Your task to perform on an android device: delete browsing data in the chrome app Image 0: 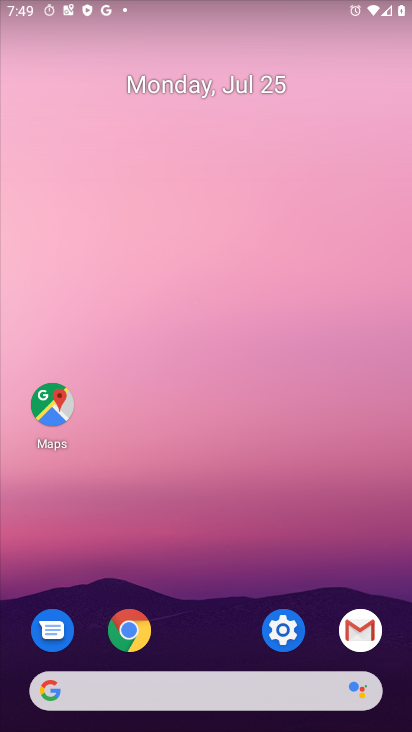
Step 0: click (116, 635)
Your task to perform on an android device: delete browsing data in the chrome app Image 1: 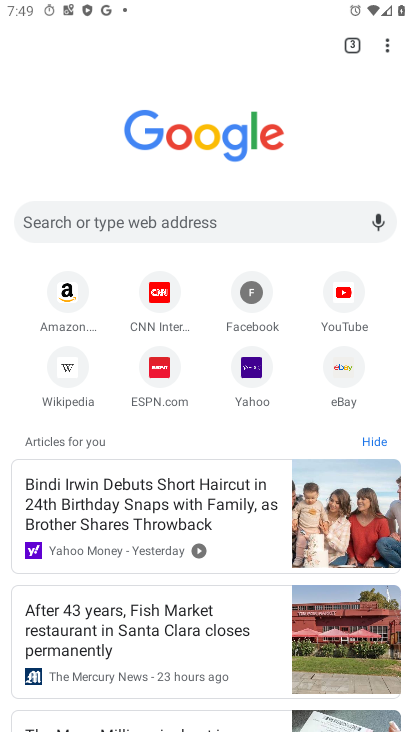
Step 1: click (382, 51)
Your task to perform on an android device: delete browsing data in the chrome app Image 2: 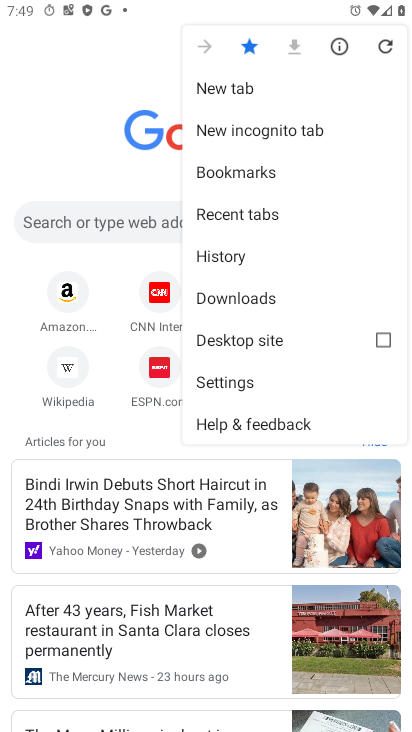
Step 2: click (232, 372)
Your task to perform on an android device: delete browsing data in the chrome app Image 3: 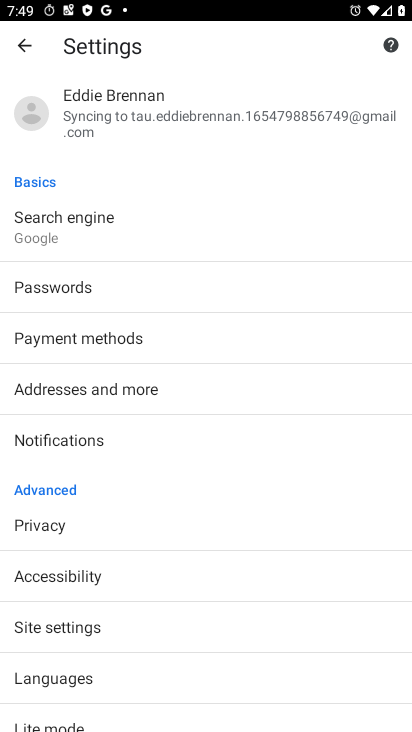
Step 3: drag from (88, 684) to (141, 578)
Your task to perform on an android device: delete browsing data in the chrome app Image 4: 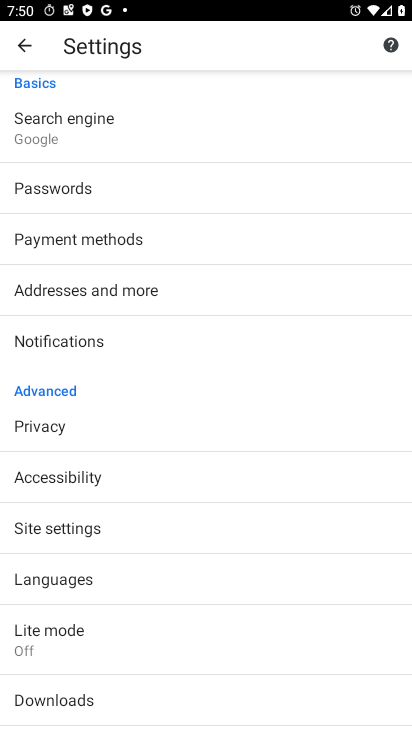
Step 4: click (59, 429)
Your task to perform on an android device: delete browsing data in the chrome app Image 5: 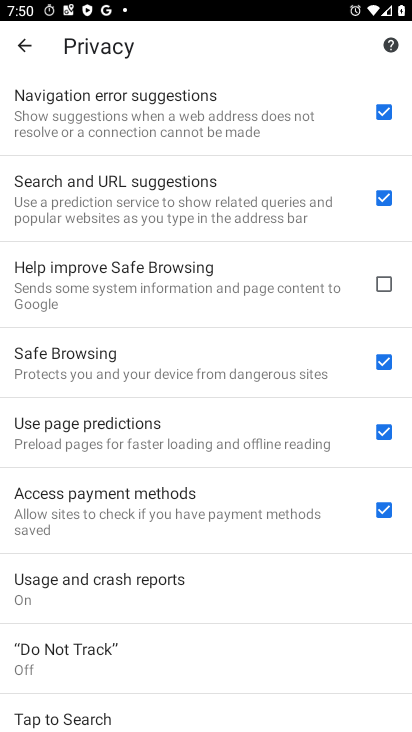
Step 5: drag from (97, 661) to (139, 400)
Your task to perform on an android device: delete browsing data in the chrome app Image 6: 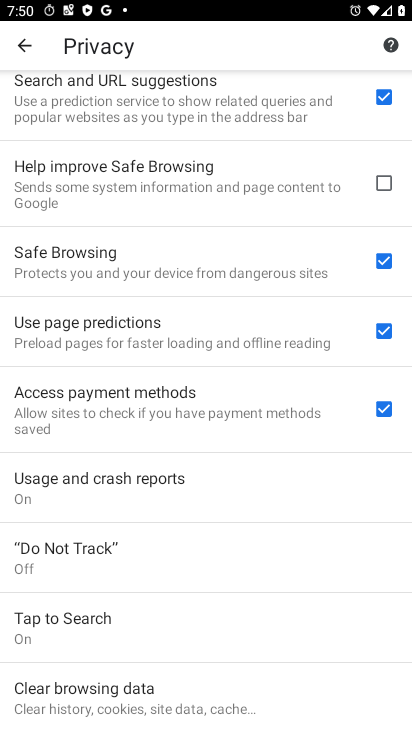
Step 6: click (115, 690)
Your task to perform on an android device: delete browsing data in the chrome app Image 7: 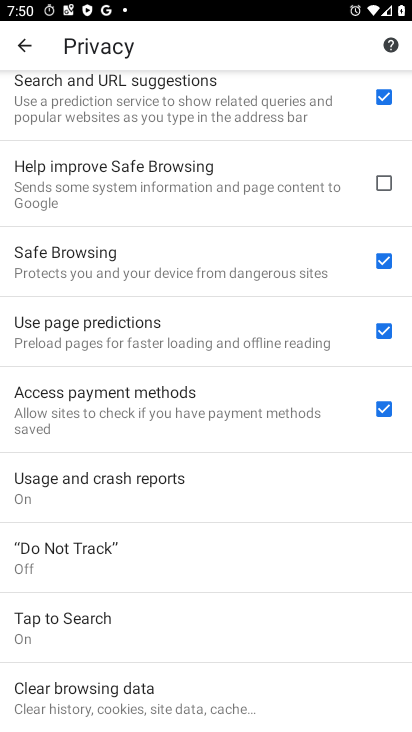
Step 7: click (162, 690)
Your task to perform on an android device: delete browsing data in the chrome app Image 8: 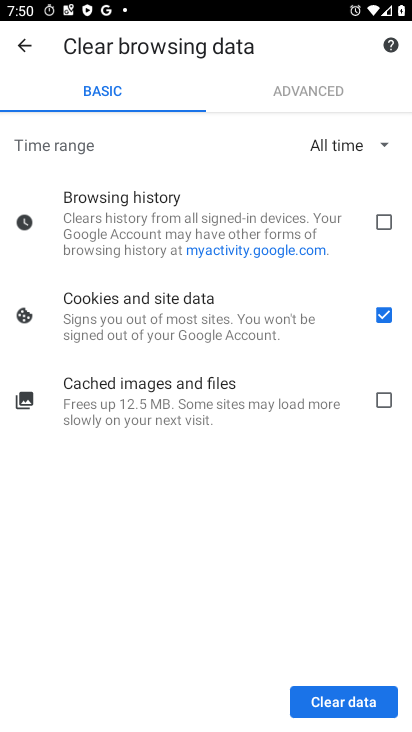
Step 8: click (326, 712)
Your task to perform on an android device: delete browsing data in the chrome app Image 9: 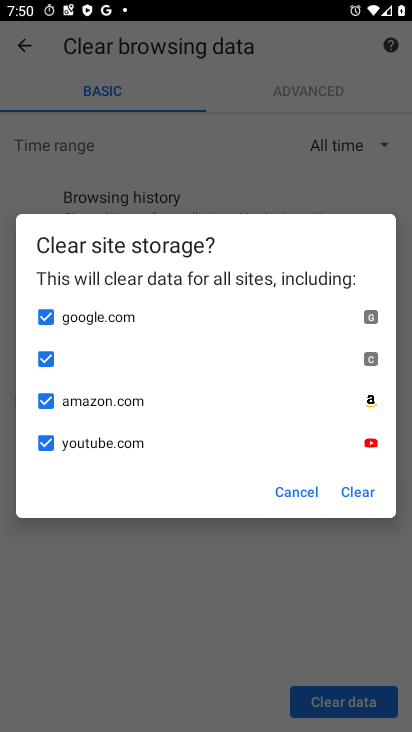
Step 9: click (303, 492)
Your task to perform on an android device: delete browsing data in the chrome app Image 10: 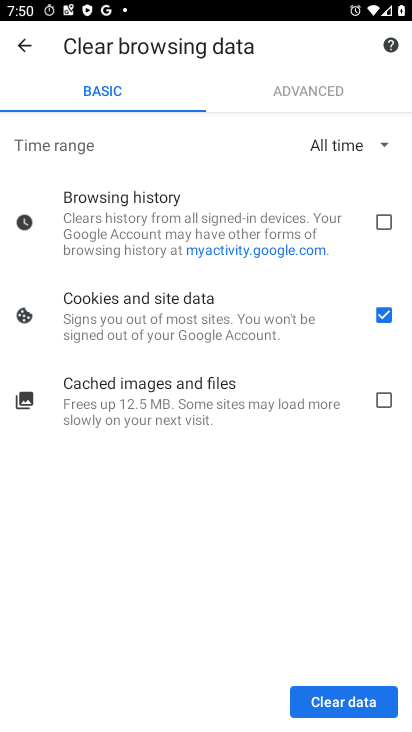
Step 10: click (387, 225)
Your task to perform on an android device: delete browsing data in the chrome app Image 11: 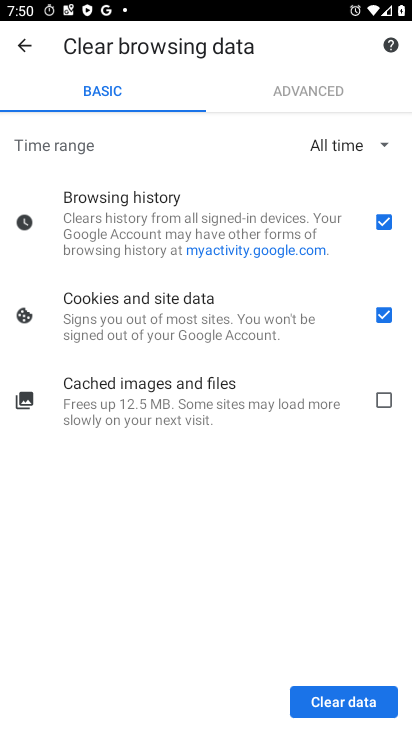
Step 11: click (354, 710)
Your task to perform on an android device: delete browsing data in the chrome app Image 12: 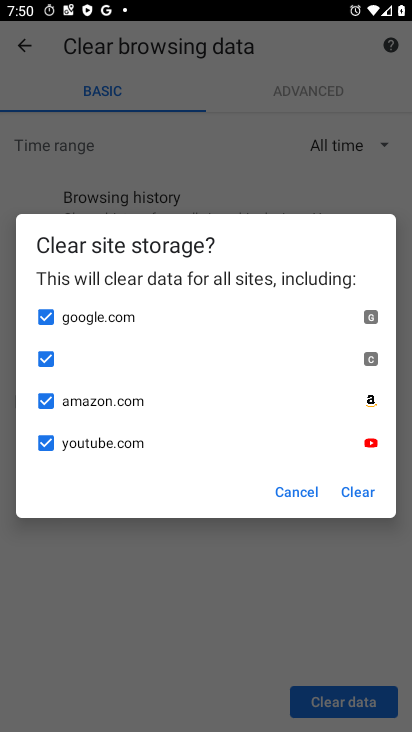
Step 12: click (358, 491)
Your task to perform on an android device: delete browsing data in the chrome app Image 13: 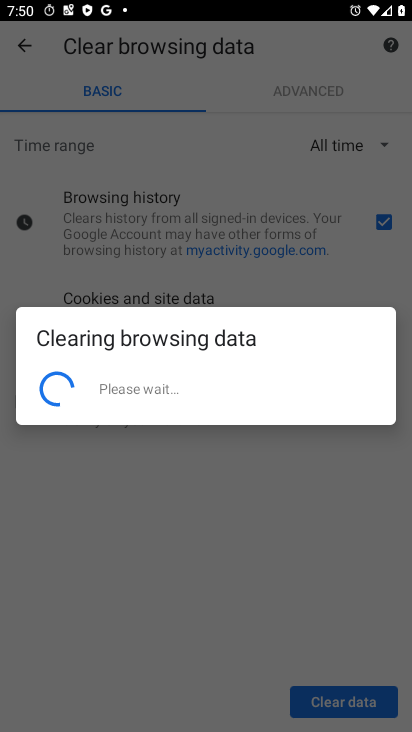
Step 13: task complete